Your task to perform on an android device: Open CNN.com Image 0: 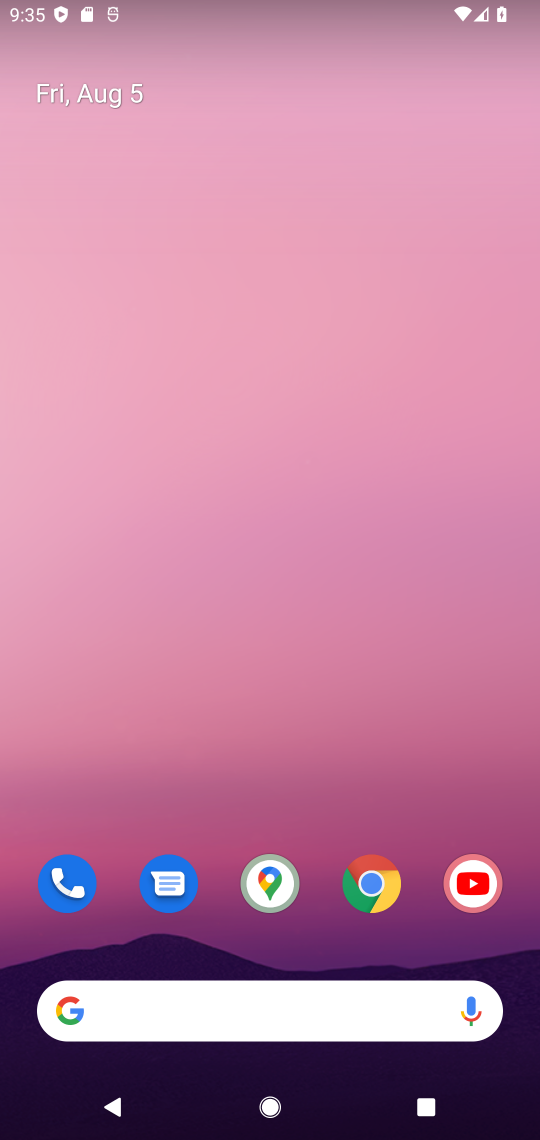
Step 0: click (386, 876)
Your task to perform on an android device: Open CNN.com Image 1: 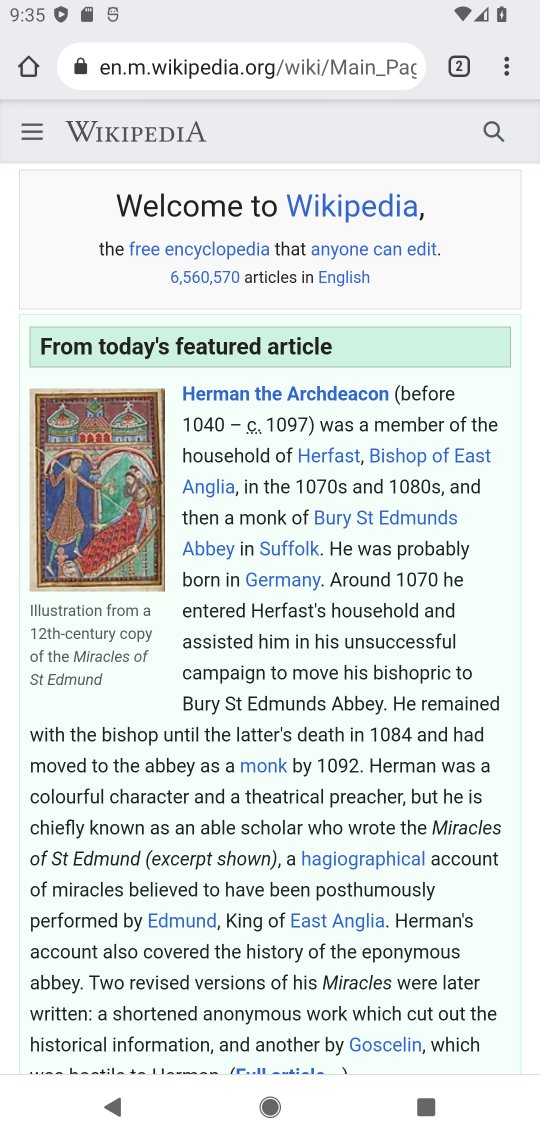
Step 1: click (464, 74)
Your task to perform on an android device: Open CNN.com Image 2: 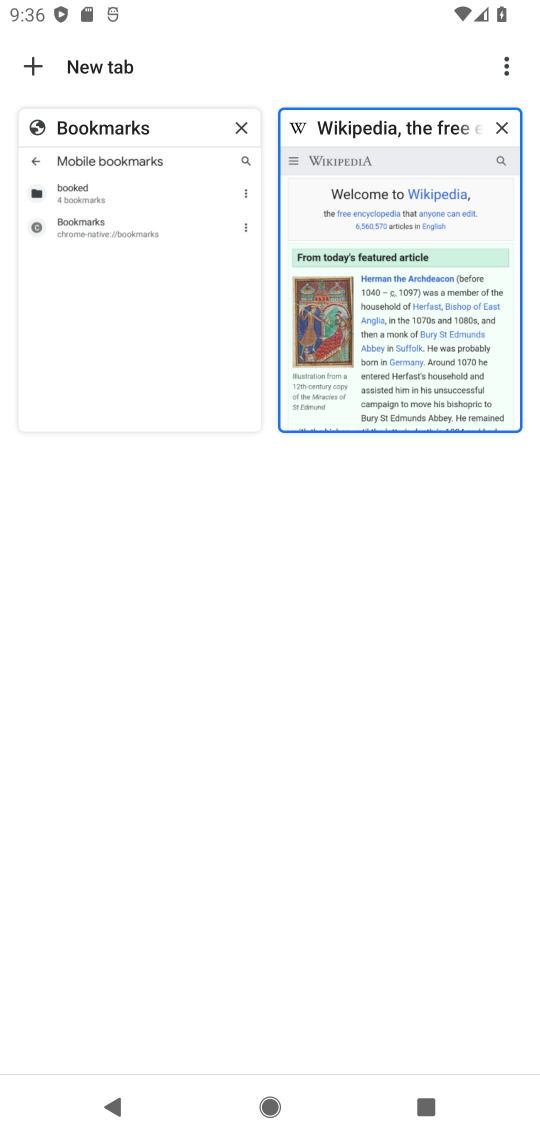
Step 2: click (47, 63)
Your task to perform on an android device: Open CNN.com Image 3: 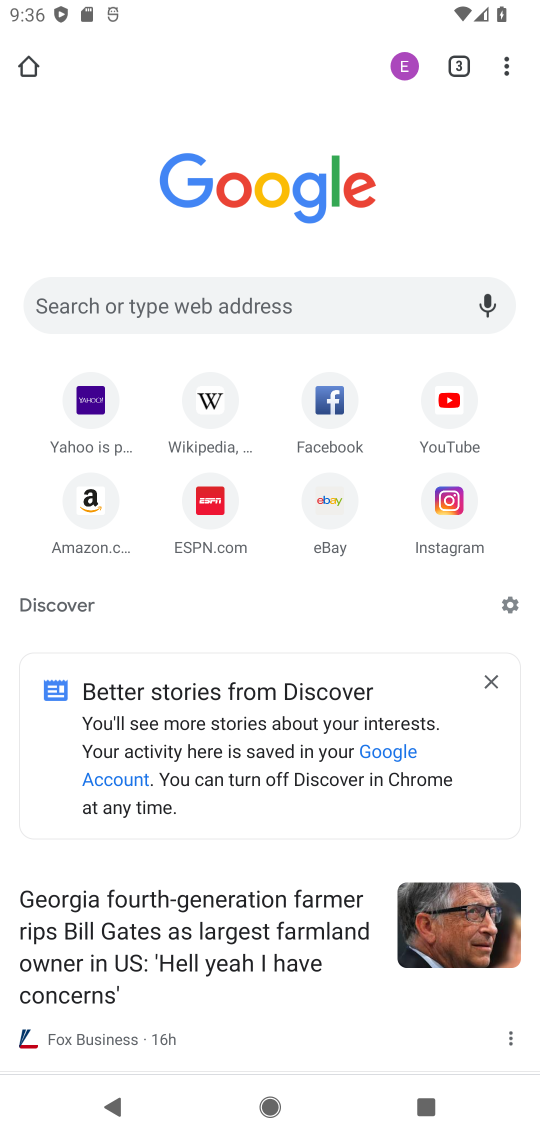
Step 3: click (148, 310)
Your task to perform on an android device: Open CNN.com Image 4: 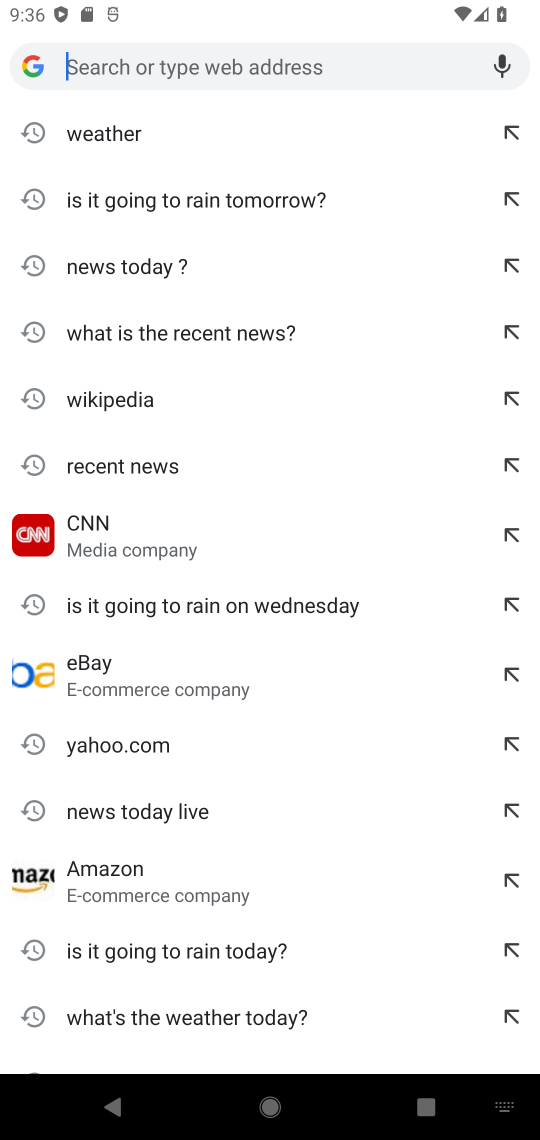
Step 4: type "cnn.com"
Your task to perform on an android device: Open CNN.com Image 5: 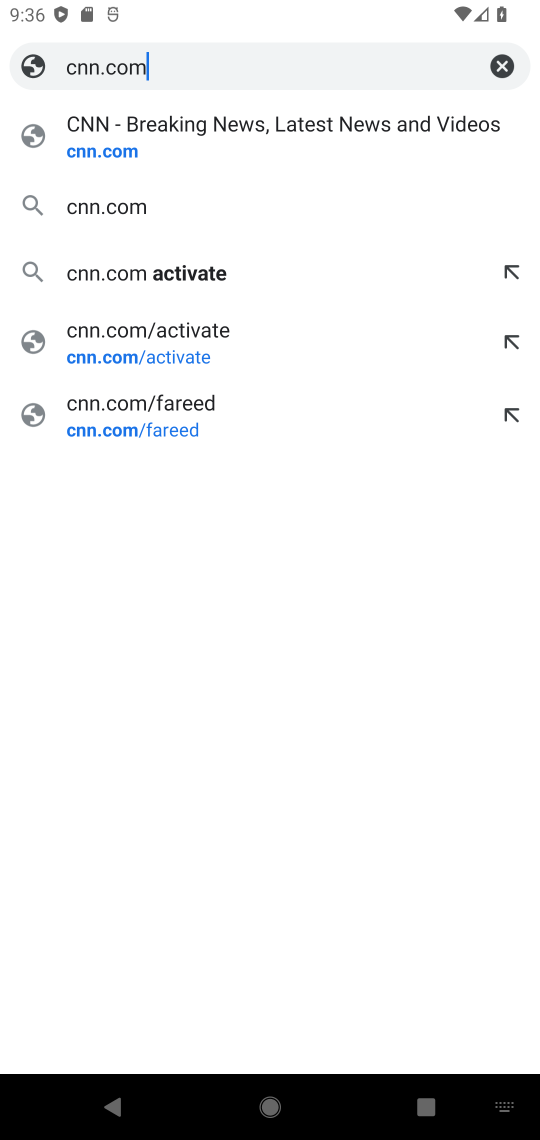
Step 5: click (190, 148)
Your task to perform on an android device: Open CNN.com Image 6: 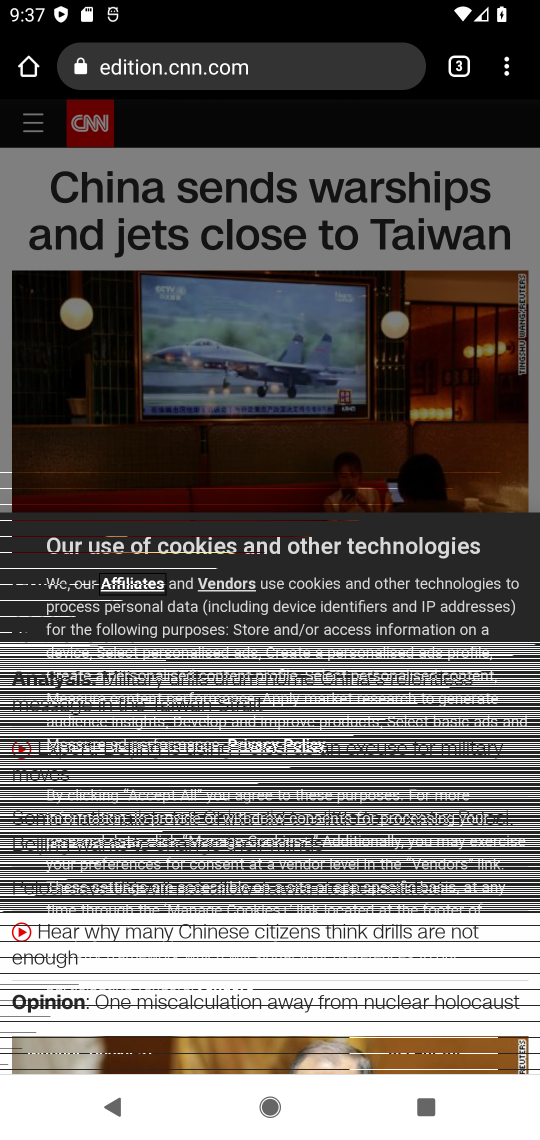
Step 6: task complete